Your task to perform on an android device: Go to battery settings Image 0: 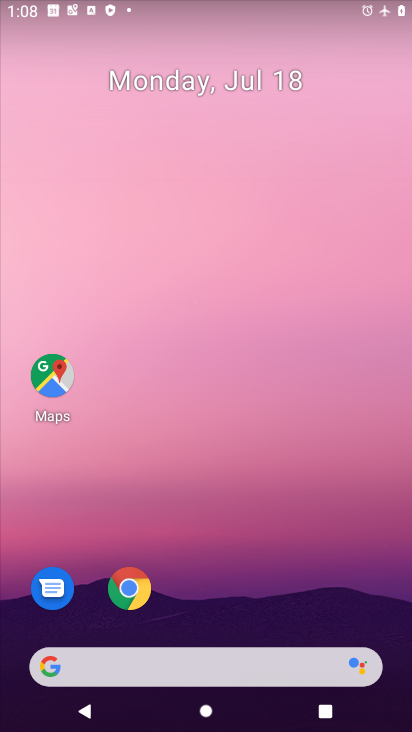
Step 0: drag from (233, 600) to (155, 56)
Your task to perform on an android device: Go to battery settings Image 1: 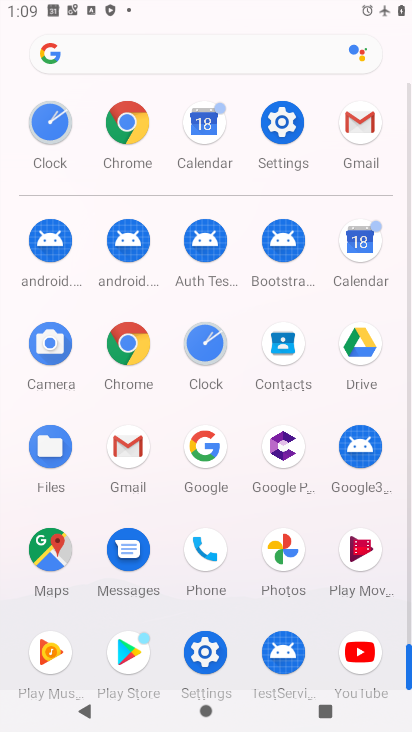
Step 1: click (285, 163)
Your task to perform on an android device: Go to battery settings Image 2: 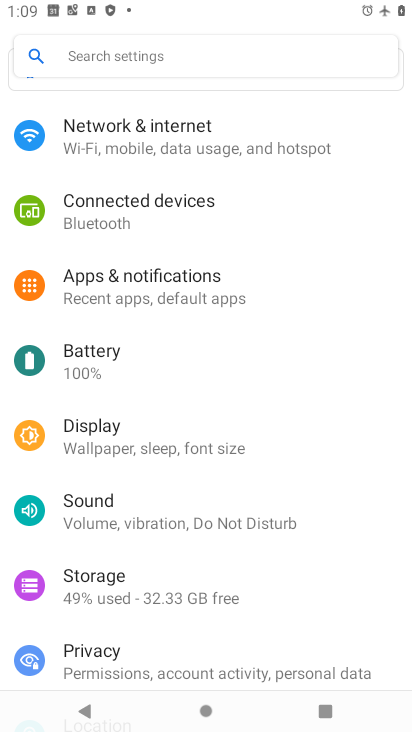
Step 2: click (113, 372)
Your task to perform on an android device: Go to battery settings Image 3: 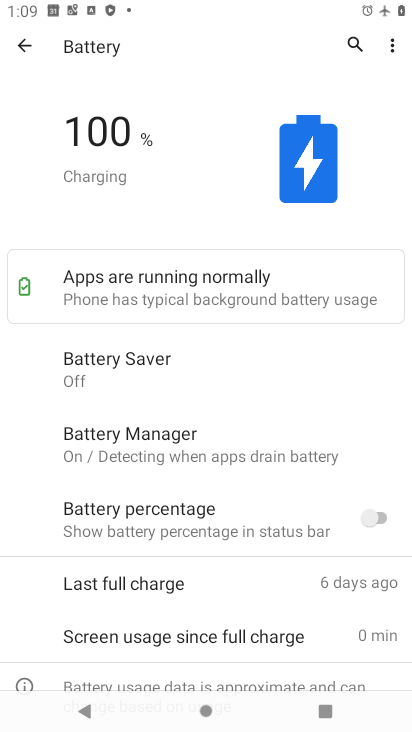
Step 3: task complete